Your task to perform on an android device: When is my next appointment? Image 0: 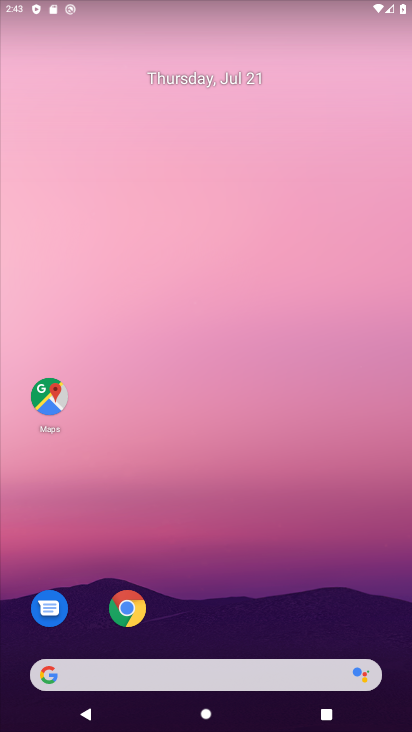
Step 0: drag from (179, 682) to (185, 300)
Your task to perform on an android device: When is my next appointment? Image 1: 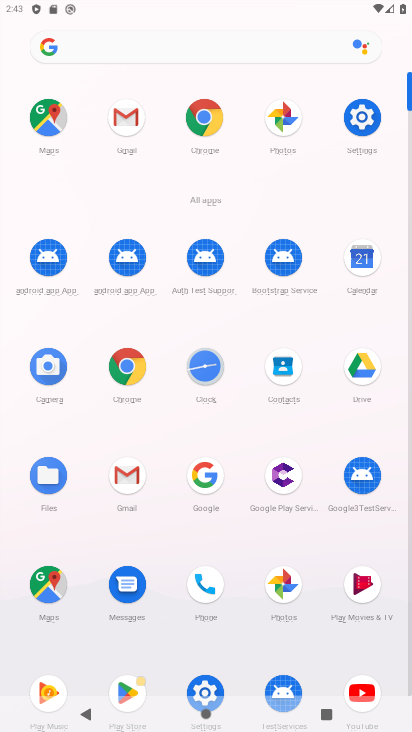
Step 1: click (374, 267)
Your task to perform on an android device: When is my next appointment? Image 2: 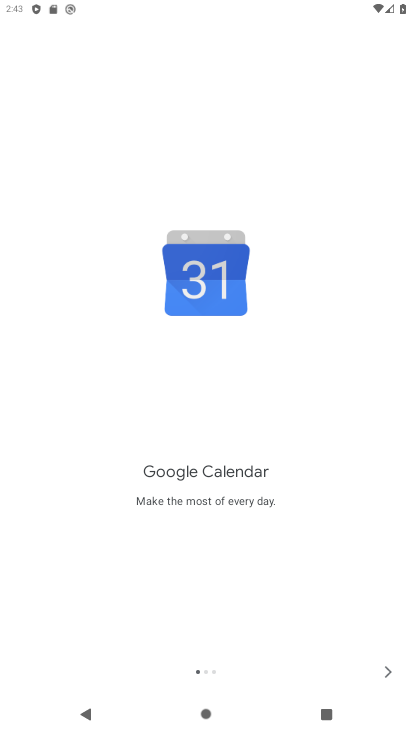
Step 2: click (380, 664)
Your task to perform on an android device: When is my next appointment? Image 3: 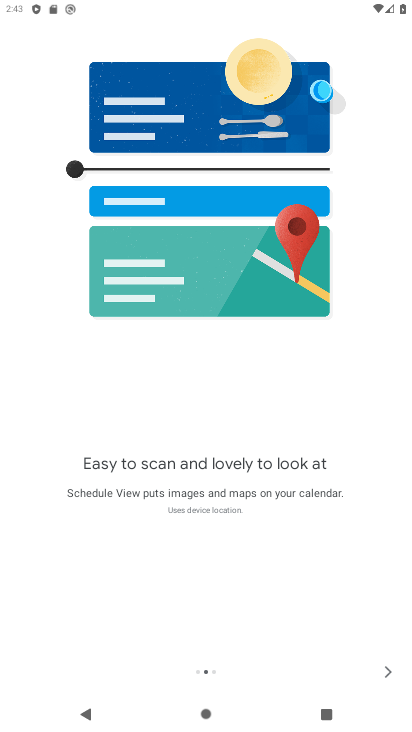
Step 3: click (380, 664)
Your task to perform on an android device: When is my next appointment? Image 4: 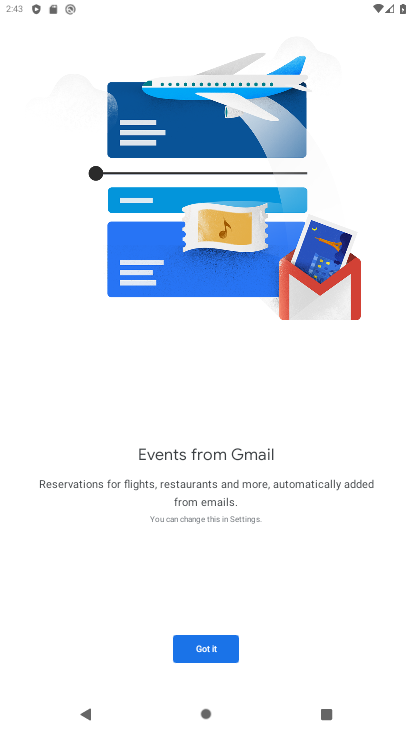
Step 4: click (203, 656)
Your task to perform on an android device: When is my next appointment? Image 5: 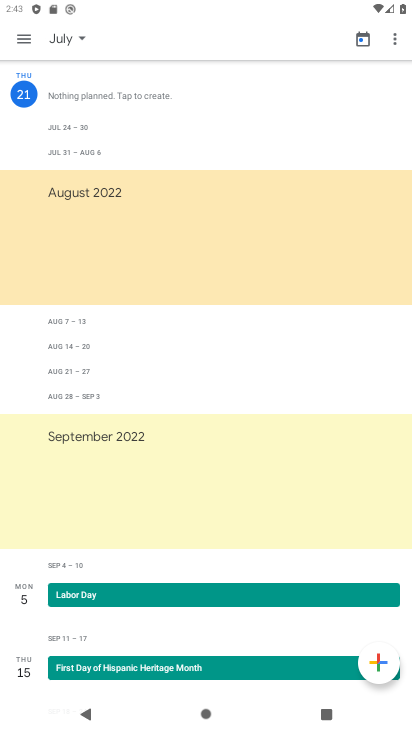
Step 5: task complete